Your task to perform on an android device: Find coffee shops on Maps Image 0: 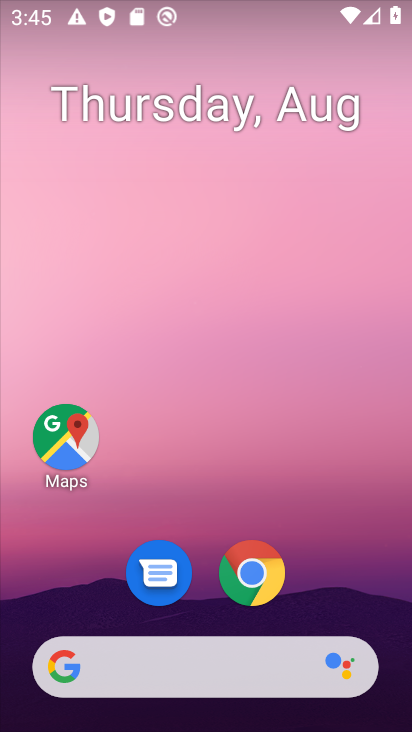
Step 0: click (62, 450)
Your task to perform on an android device: Find coffee shops on Maps Image 1: 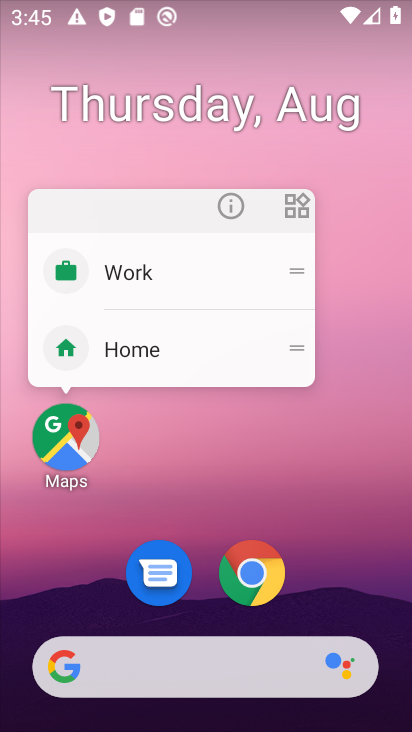
Step 1: click (62, 450)
Your task to perform on an android device: Find coffee shops on Maps Image 2: 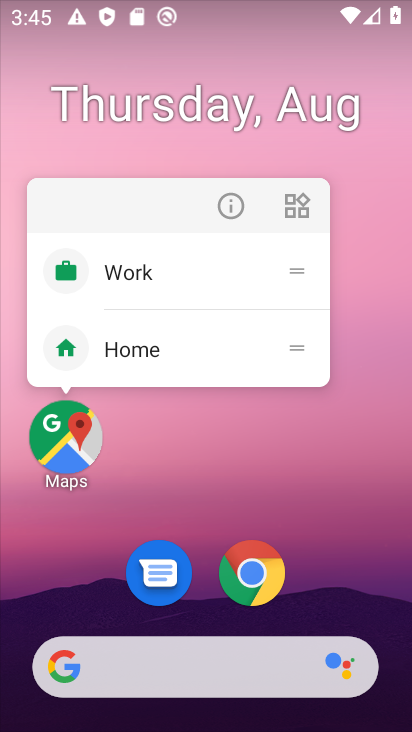
Step 2: click (62, 450)
Your task to perform on an android device: Find coffee shops on Maps Image 3: 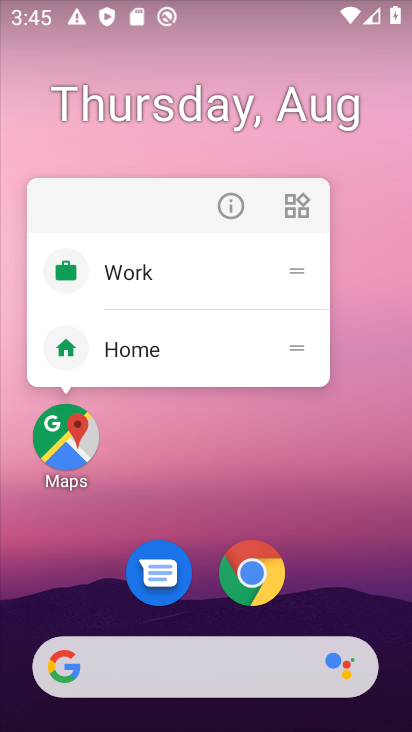
Step 3: click (112, 260)
Your task to perform on an android device: Find coffee shops on Maps Image 4: 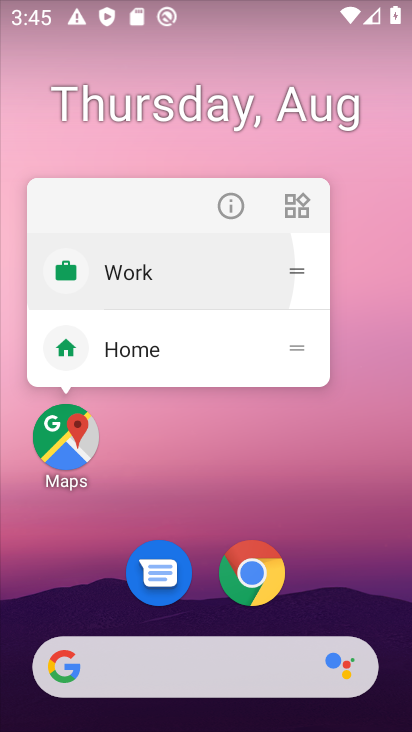
Step 4: click (113, 260)
Your task to perform on an android device: Find coffee shops on Maps Image 5: 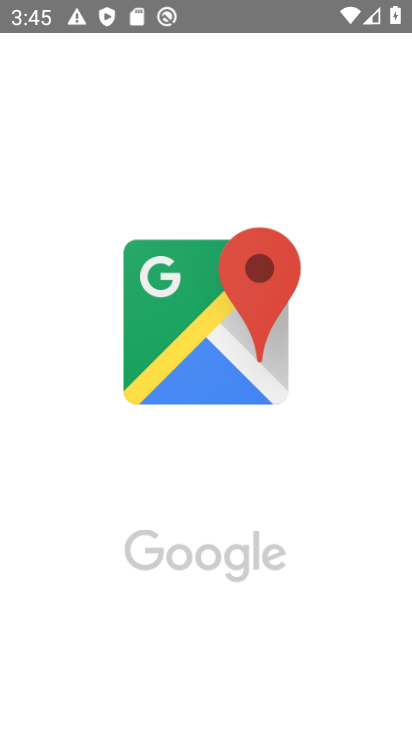
Step 5: click (122, 267)
Your task to perform on an android device: Find coffee shops on Maps Image 6: 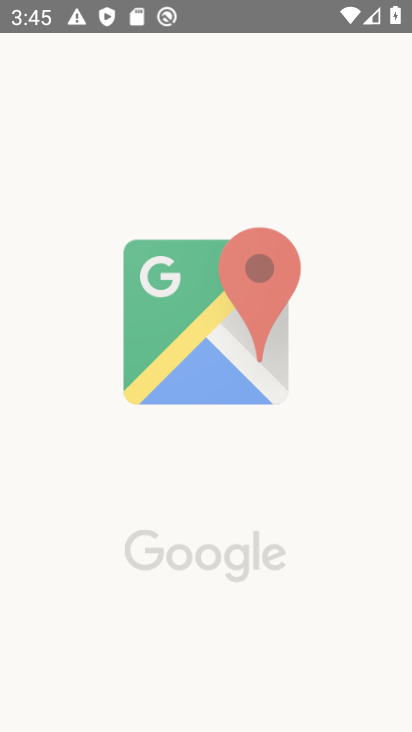
Step 6: click (190, 322)
Your task to perform on an android device: Find coffee shops on Maps Image 7: 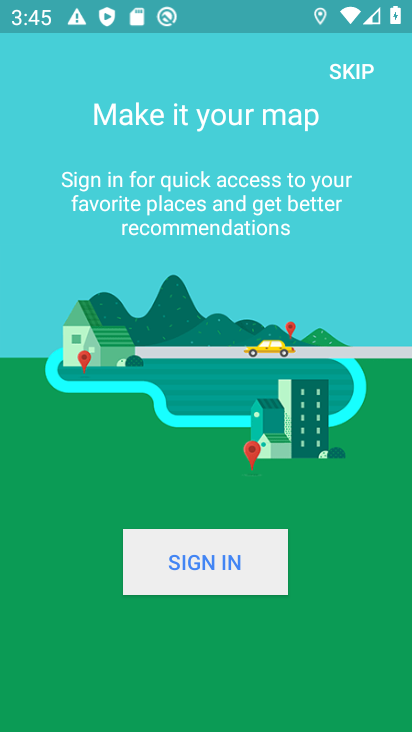
Step 7: click (366, 70)
Your task to perform on an android device: Find coffee shops on Maps Image 8: 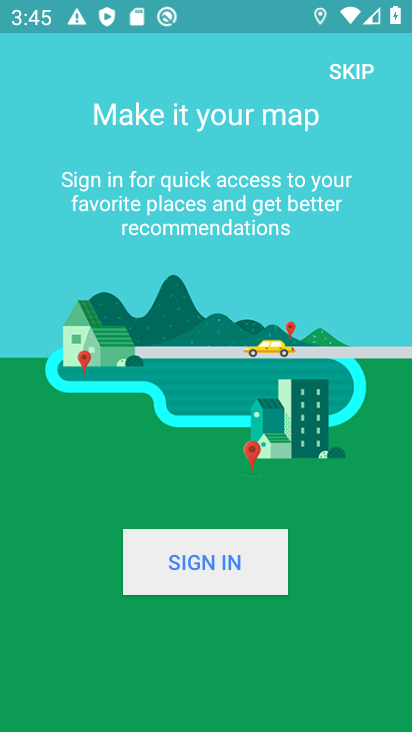
Step 8: click (353, 74)
Your task to perform on an android device: Find coffee shops on Maps Image 9: 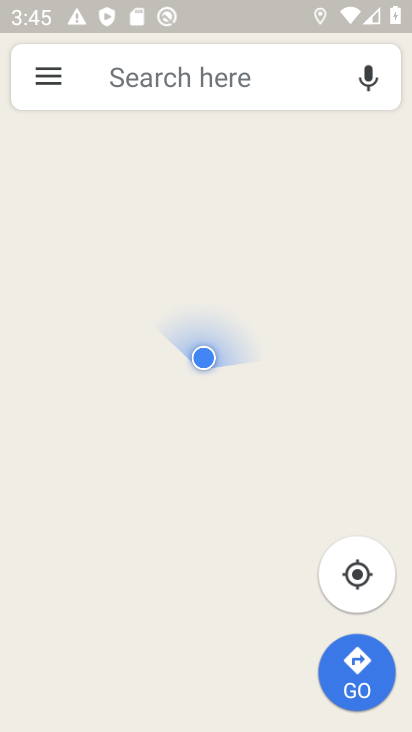
Step 9: click (101, 83)
Your task to perform on an android device: Find coffee shops on Maps Image 10: 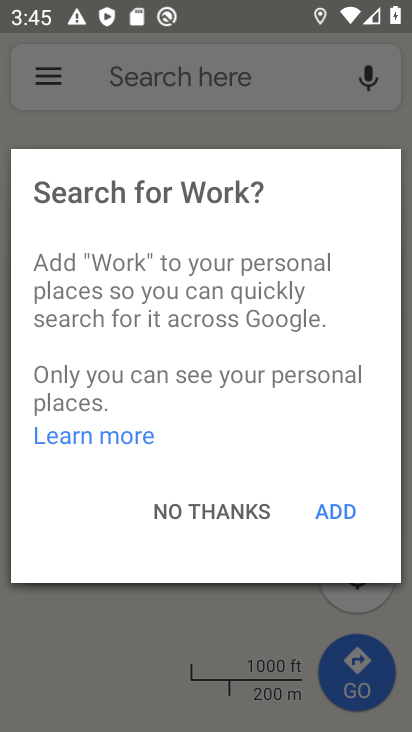
Step 10: click (102, 79)
Your task to perform on an android device: Find coffee shops on Maps Image 11: 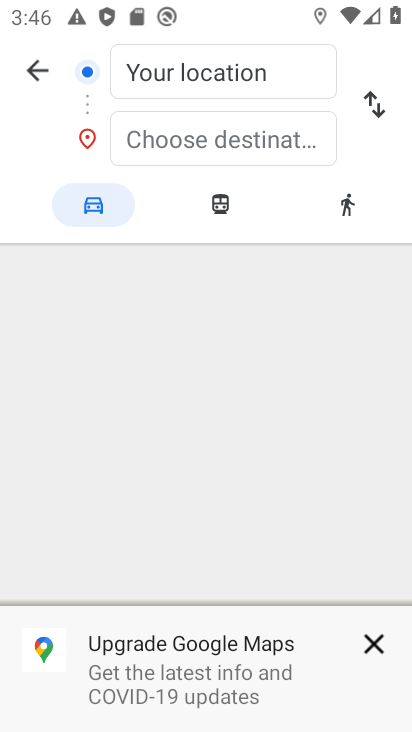
Step 11: click (252, 513)
Your task to perform on an android device: Find coffee shops on Maps Image 12: 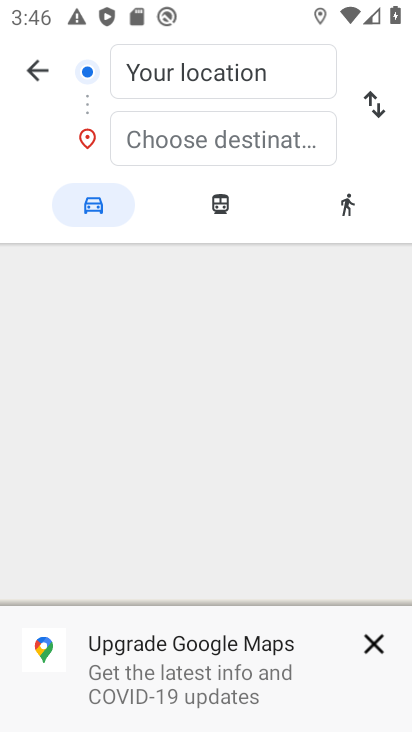
Step 12: click (36, 65)
Your task to perform on an android device: Find coffee shops on Maps Image 13: 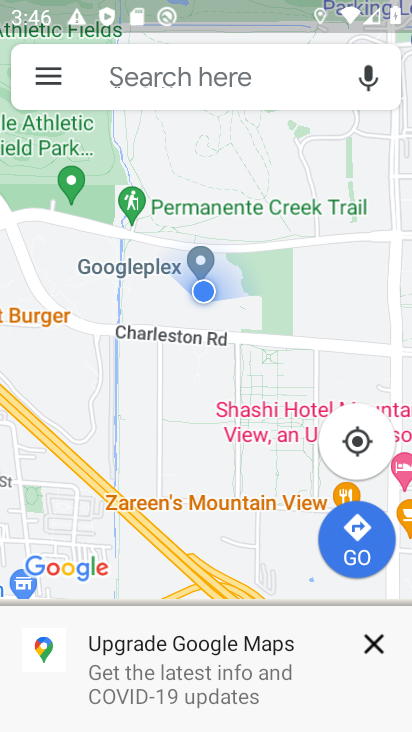
Step 13: click (118, 75)
Your task to perform on an android device: Find coffee shops on Maps Image 14: 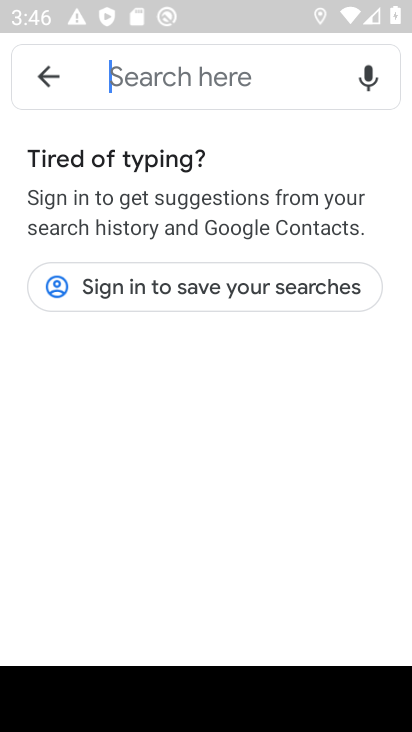
Step 14: type "coffee"
Your task to perform on an android device: Find coffee shops on Maps Image 15: 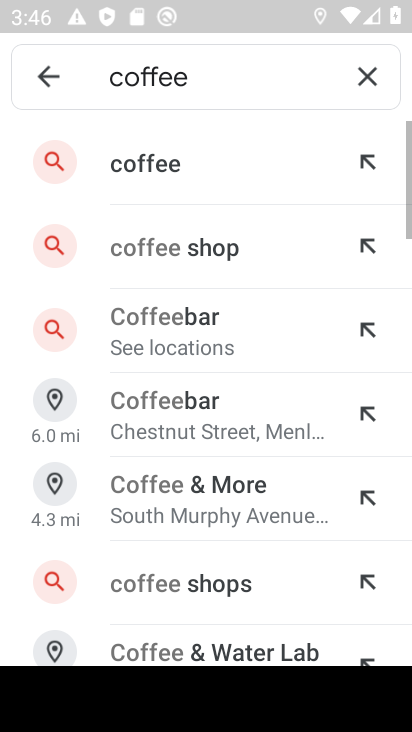
Step 15: click (150, 173)
Your task to perform on an android device: Find coffee shops on Maps Image 16: 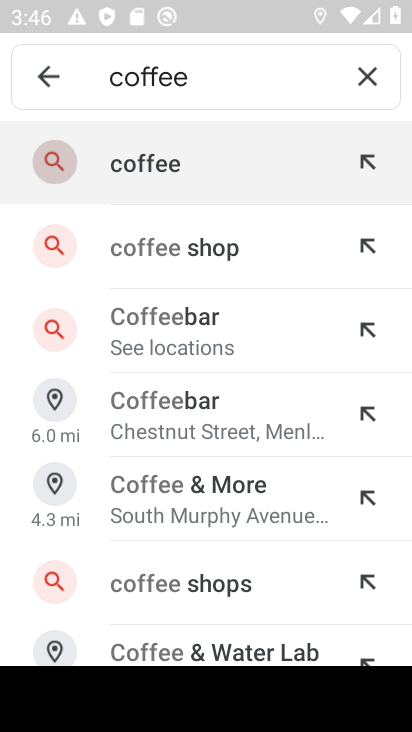
Step 16: click (150, 172)
Your task to perform on an android device: Find coffee shops on Maps Image 17: 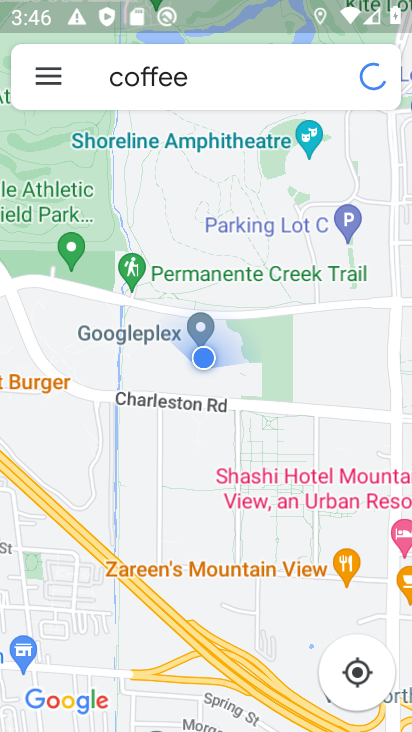
Step 17: click (150, 171)
Your task to perform on an android device: Find coffee shops on Maps Image 18: 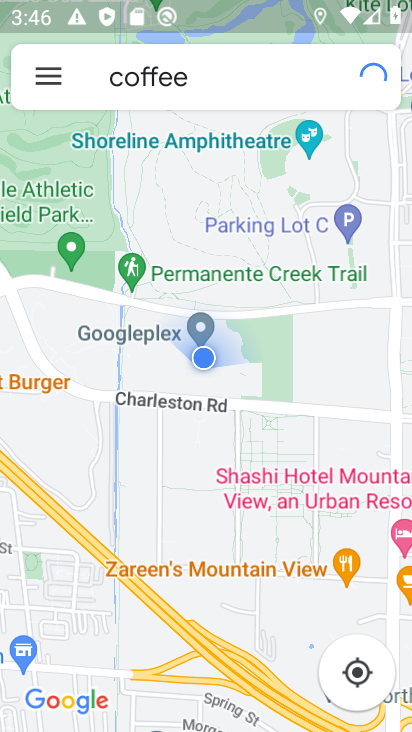
Step 18: click (150, 171)
Your task to perform on an android device: Find coffee shops on Maps Image 19: 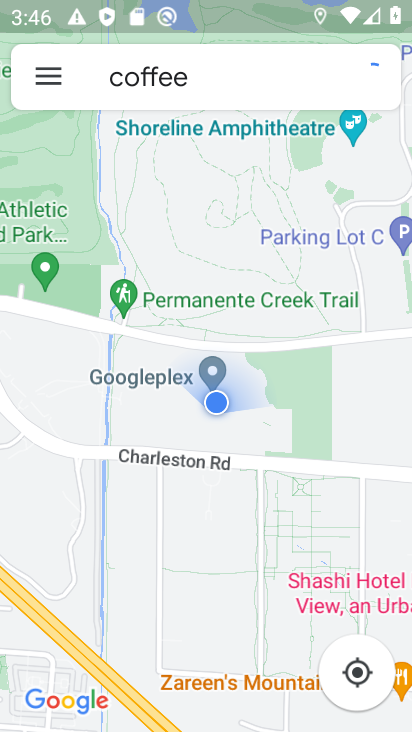
Step 19: task complete